Your task to perform on an android device: Open network settings Image 0: 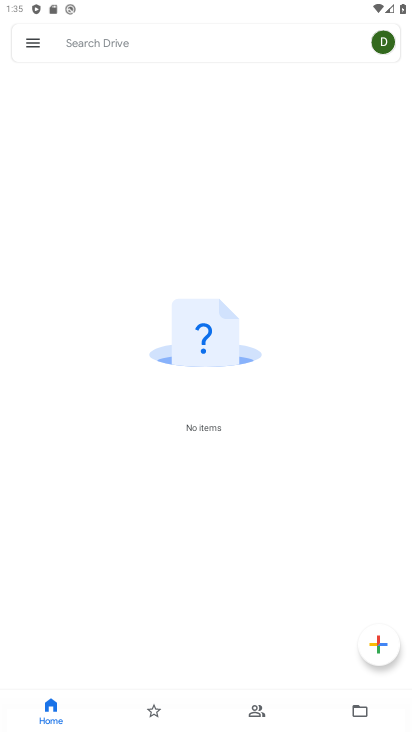
Step 0: press home button
Your task to perform on an android device: Open network settings Image 1: 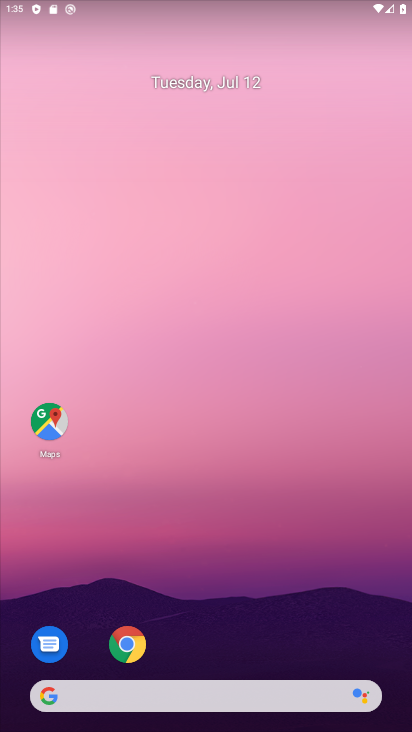
Step 1: drag from (210, 664) to (134, 104)
Your task to perform on an android device: Open network settings Image 2: 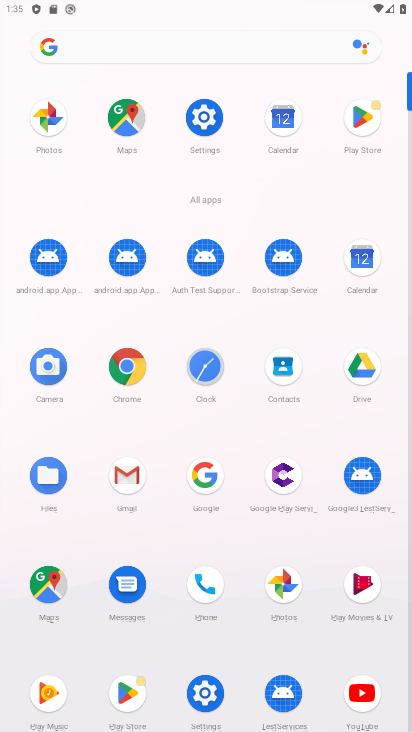
Step 2: click (209, 690)
Your task to perform on an android device: Open network settings Image 3: 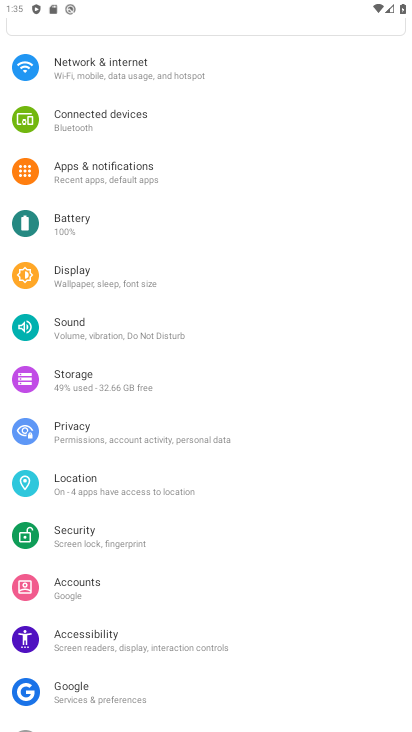
Step 3: click (53, 57)
Your task to perform on an android device: Open network settings Image 4: 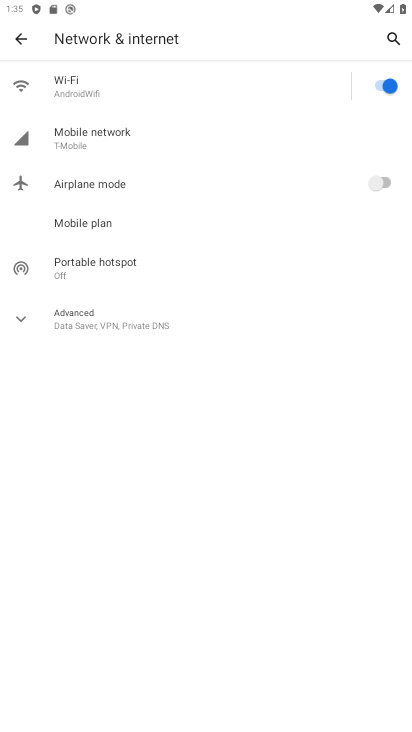
Step 4: click (93, 136)
Your task to perform on an android device: Open network settings Image 5: 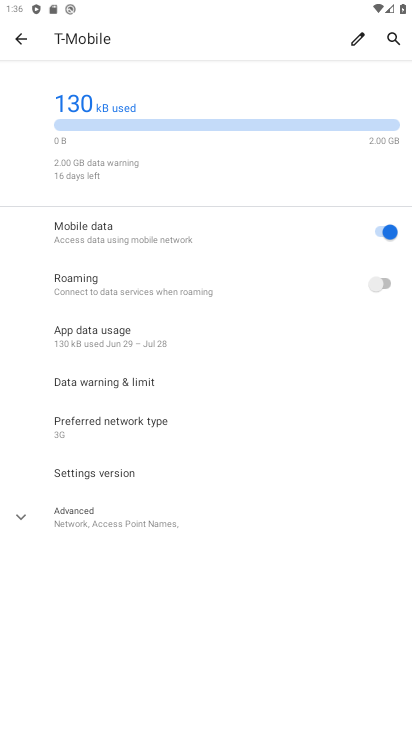
Step 5: task complete